Your task to perform on an android device: Open Google Image 0: 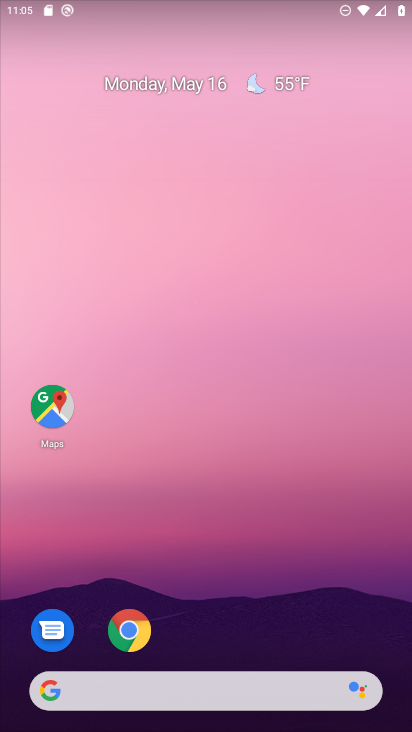
Step 0: drag from (202, 632) to (247, 186)
Your task to perform on an android device: Open Google Image 1: 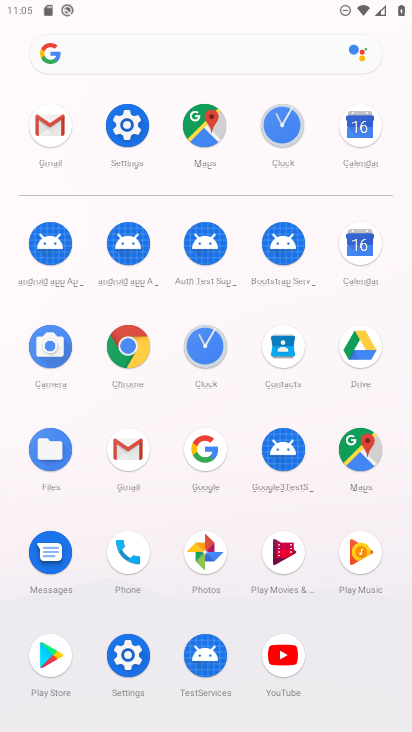
Step 1: click (186, 457)
Your task to perform on an android device: Open Google Image 2: 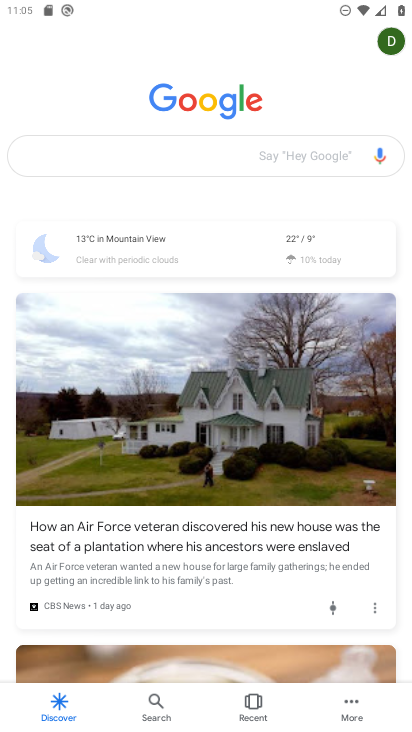
Step 2: task complete